Your task to perform on an android device: Open Chrome and go to settings Image 0: 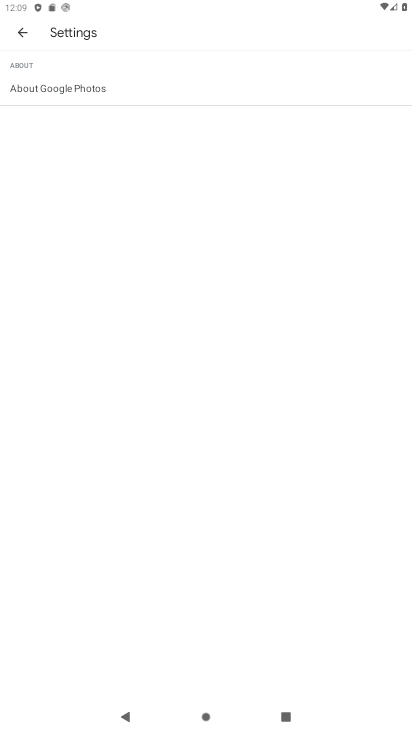
Step 0: press home button
Your task to perform on an android device: Open Chrome and go to settings Image 1: 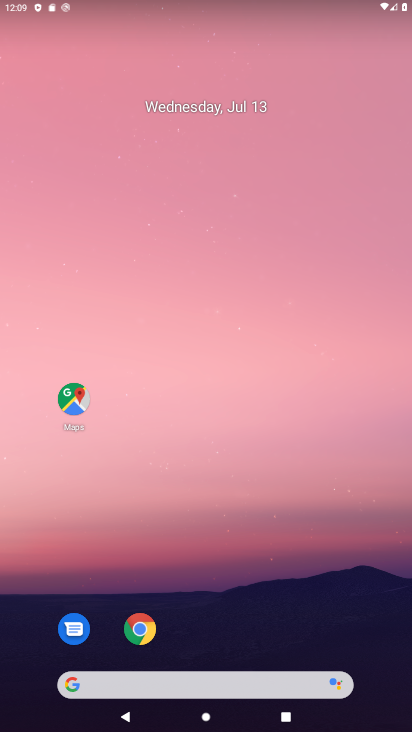
Step 1: click (132, 634)
Your task to perform on an android device: Open Chrome and go to settings Image 2: 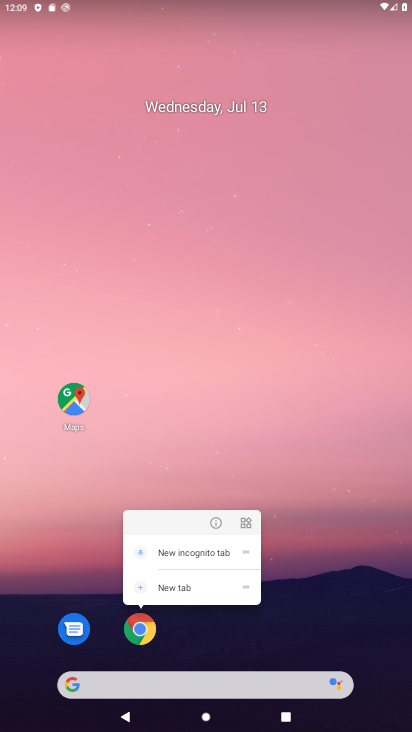
Step 2: click (137, 635)
Your task to perform on an android device: Open Chrome and go to settings Image 3: 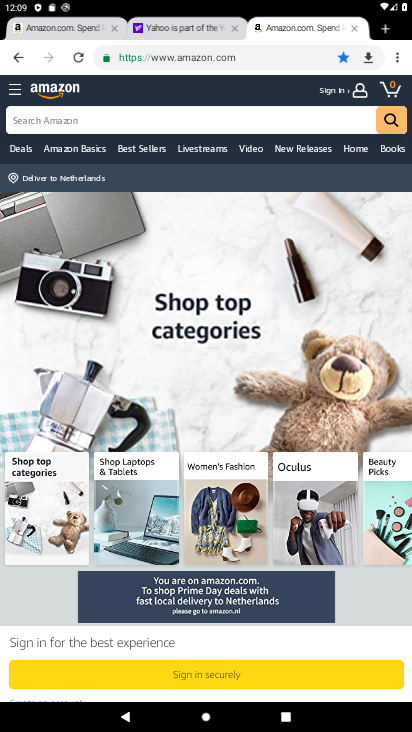
Step 3: click (386, 50)
Your task to perform on an android device: Open Chrome and go to settings Image 4: 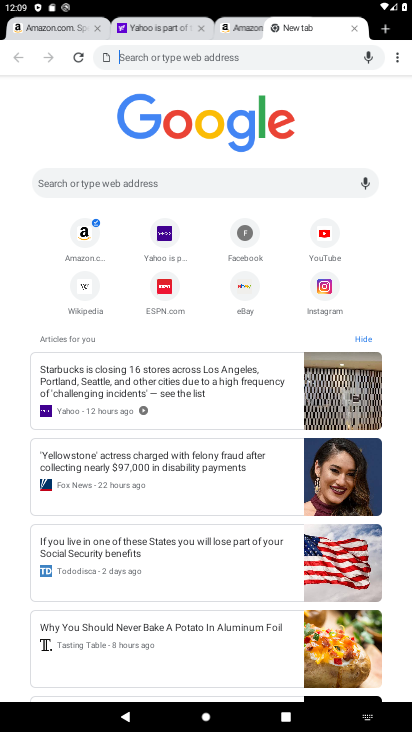
Step 4: click (394, 56)
Your task to perform on an android device: Open Chrome and go to settings Image 5: 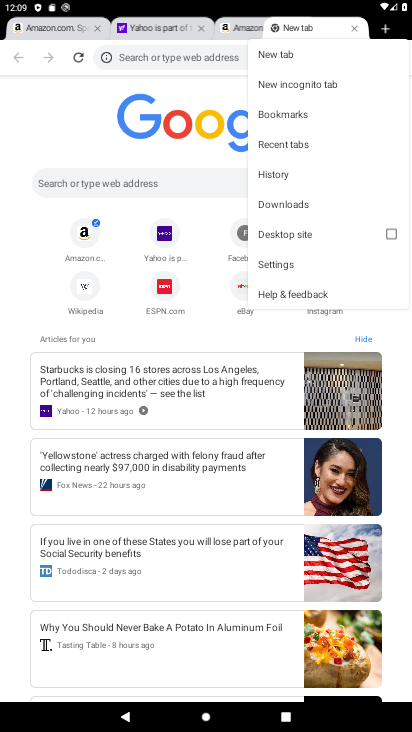
Step 5: click (287, 270)
Your task to perform on an android device: Open Chrome and go to settings Image 6: 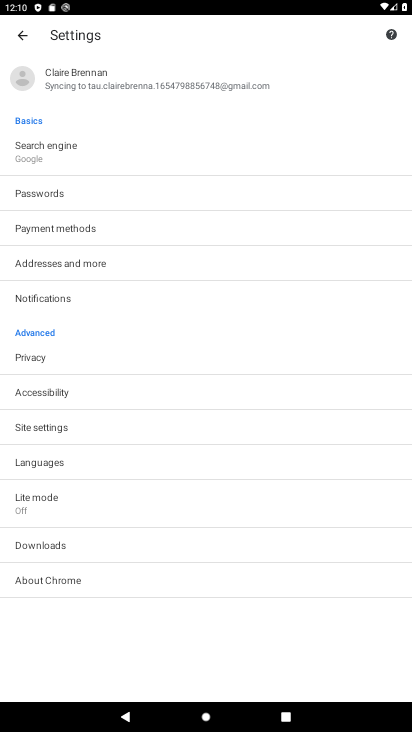
Step 6: task complete